Your task to perform on an android device: open wifi settings Image 0: 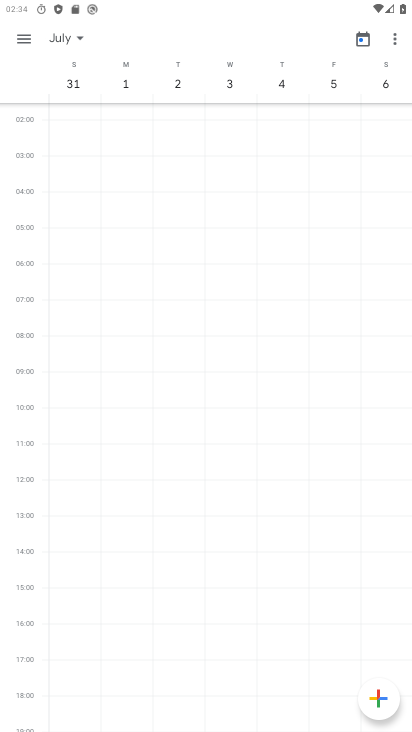
Step 0: press back button
Your task to perform on an android device: open wifi settings Image 1: 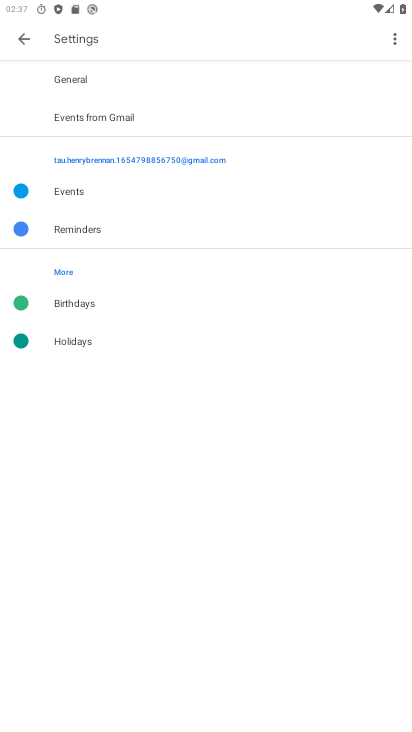
Step 1: press back button
Your task to perform on an android device: open wifi settings Image 2: 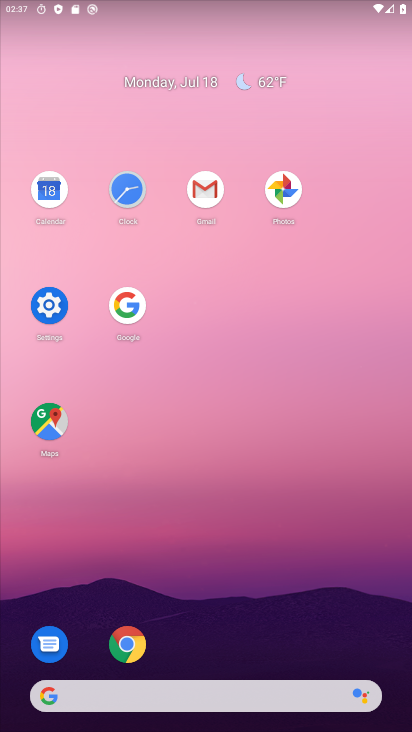
Step 2: click (43, 312)
Your task to perform on an android device: open wifi settings Image 3: 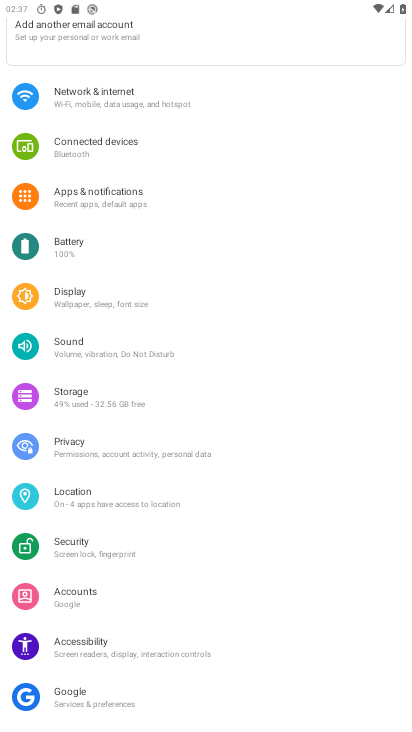
Step 3: click (186, 115)
Your task to perform on an android device: open wifi settings Image 4: 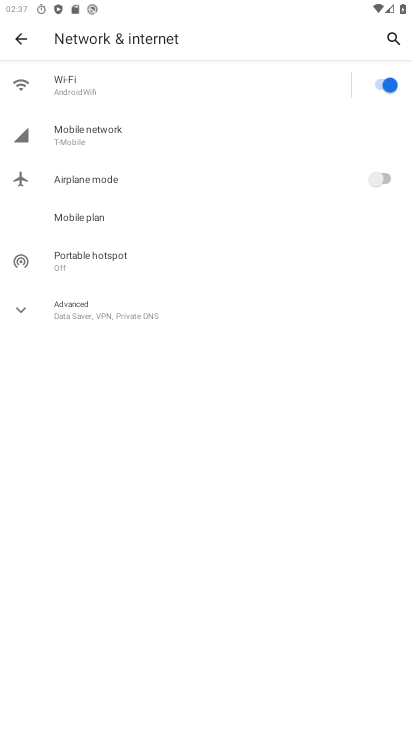
Step 4: click (152, 93)
Your task to perform on an android device: open wifi settings Image 5: 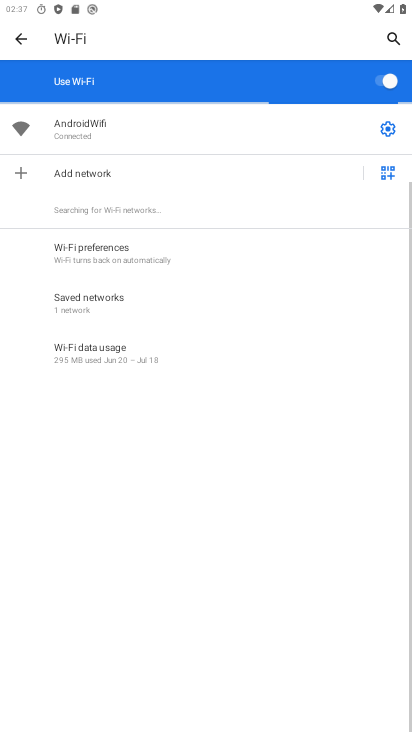
Step 5: click (395, 131)
Your task to perform on an android device: open wifi settings Image 6: 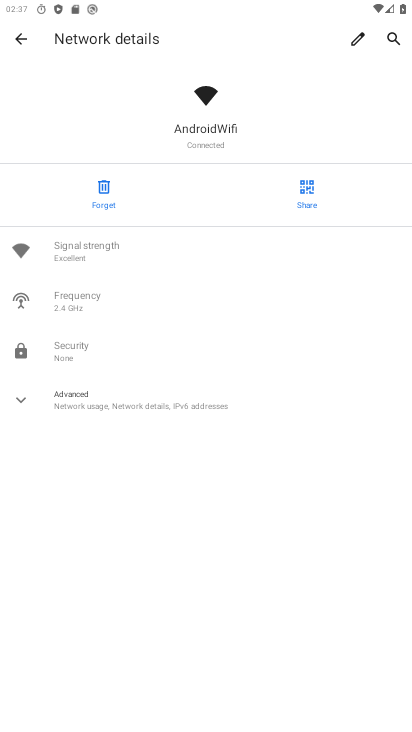
Step 6: task complete